Your task to perform on an android device: turn on priority inbox in the gmail app Image 0: 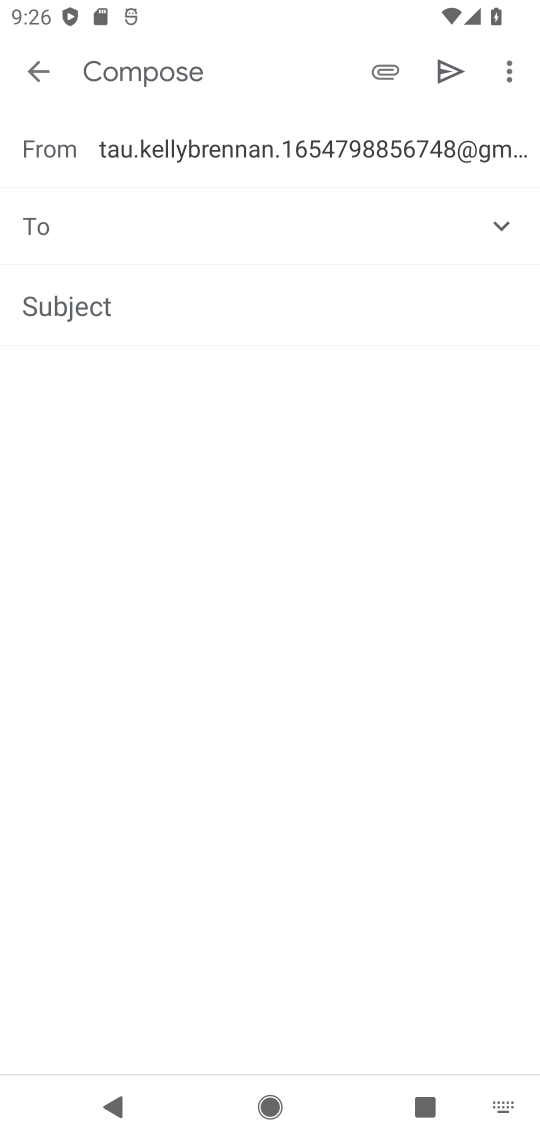
Step 0: press home button
Your task to perform on an android device: turn on priority inbox in the gmail app Image 1: 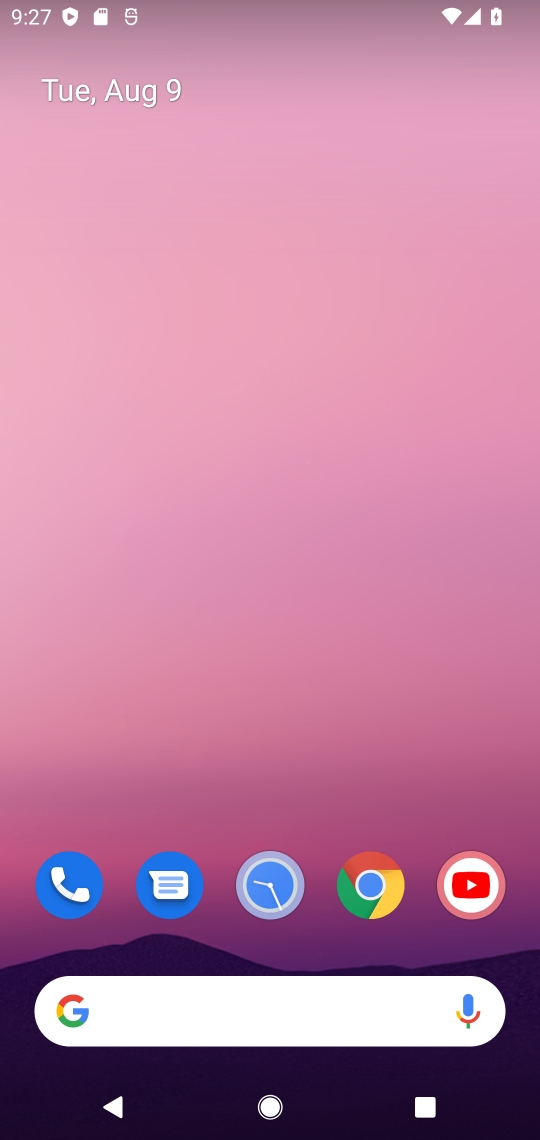
Step 1: drag from (319, 933) to (359, 193)
Your task to perform on an android device: turn on priority inbox in the gmail app Image 2: 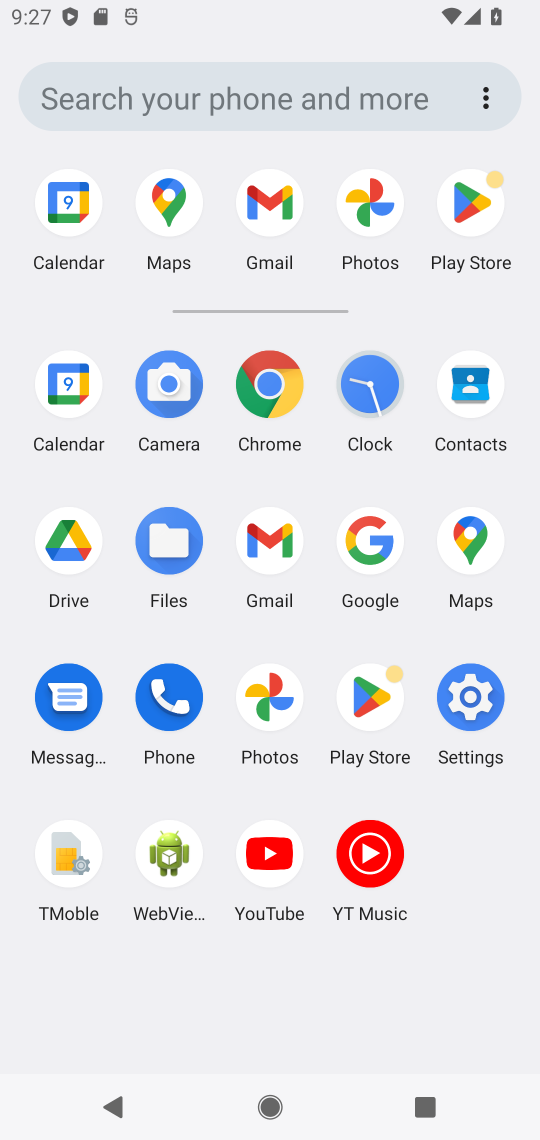
Step 2: click (269, 532)
Your task to perform on an android device: turn on priority inbox in the gmail app Image 3: 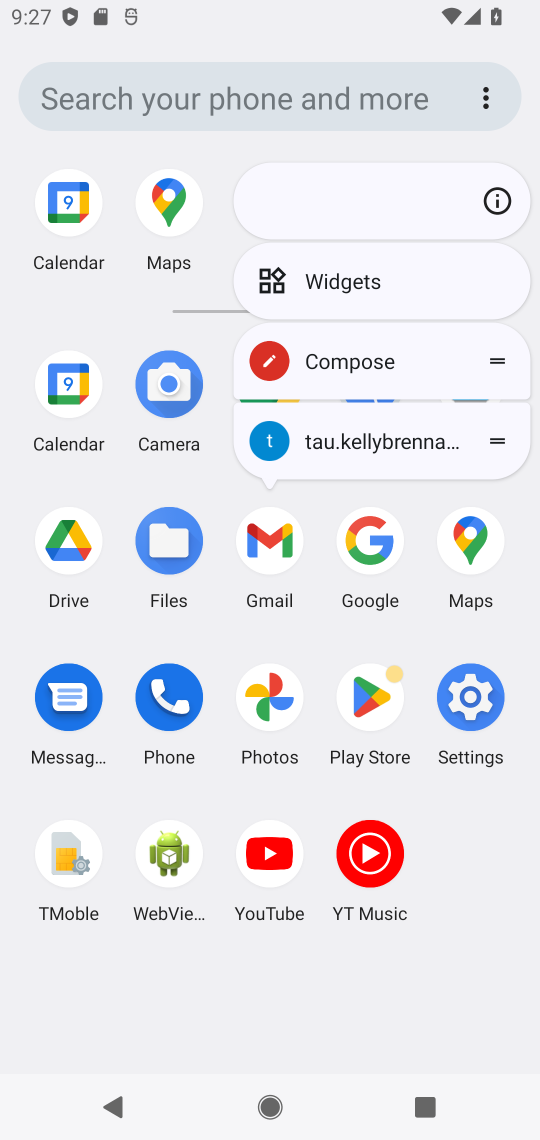
Step 3: click (272, 527)
Your task to perform on an android device: turn on priority inbox in the gmail app Image 4: 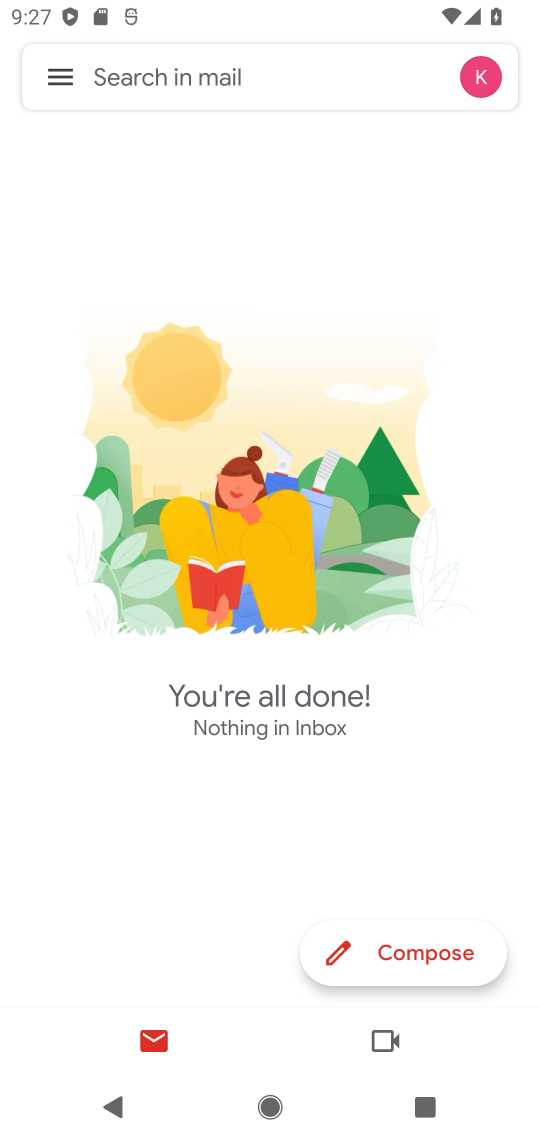
Step 4: click (60, 73)
Your task to perform on an android device: turn on priority inbox in the gmail app Image 5: 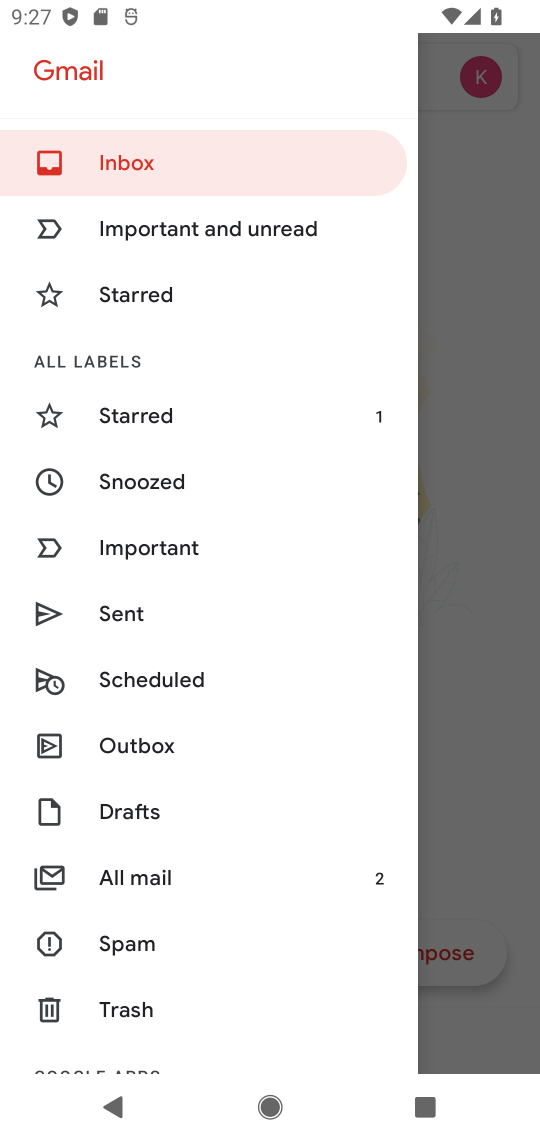
Step 5: drag from (184, 999) to (199, 337)
Your task to perform on an android device: turn on priority inbox in the gmail app Image 6: 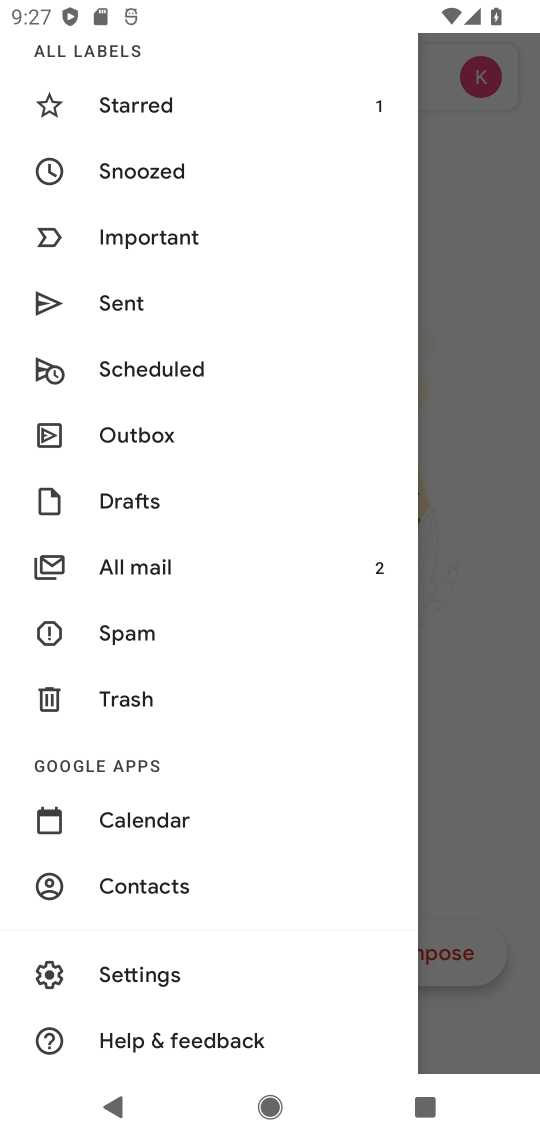
Step 6: click (186, 972)
Your task to perform on an android device: turn on priority inbox in the gmail app Image 7: 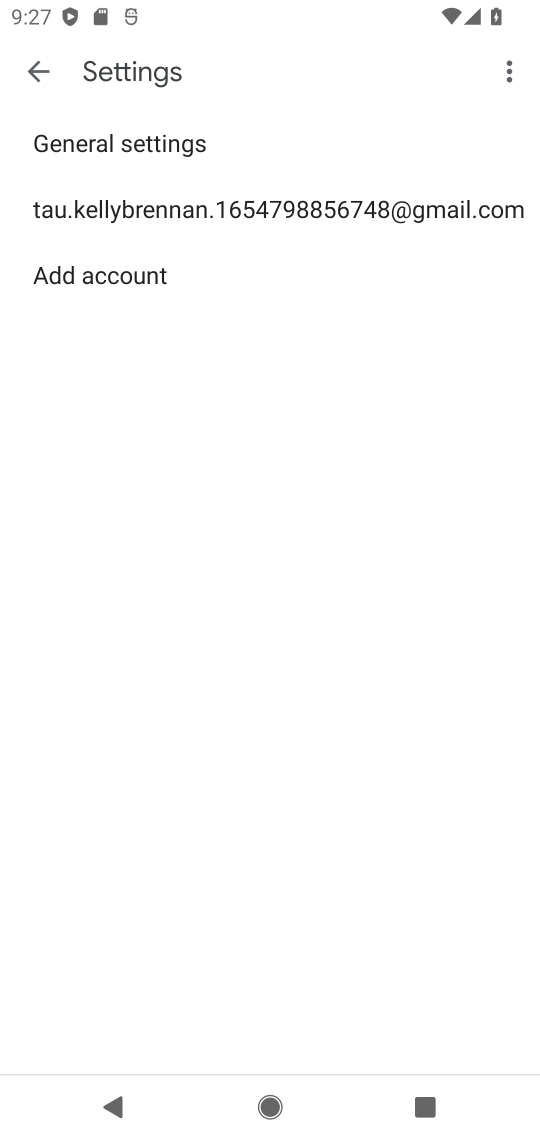
Step 7: click (234, 207)
Your task to perform on an android device: turn on priority inbox in the gmail app Image 8: 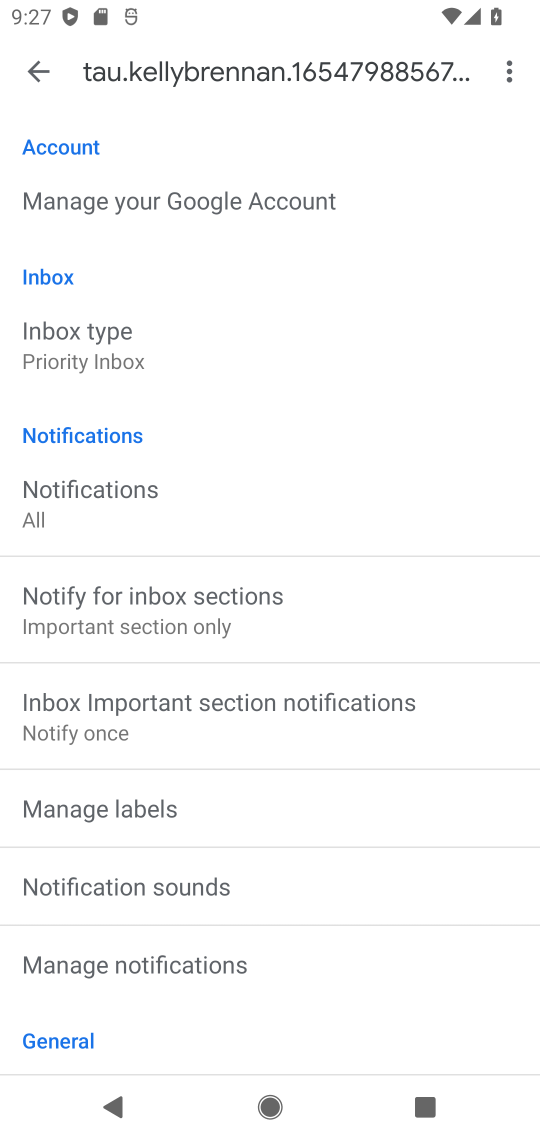
Step 8: click (174, 347)
Your task to perform on an android device: turn on priority inbox in the gmail app Image 9: 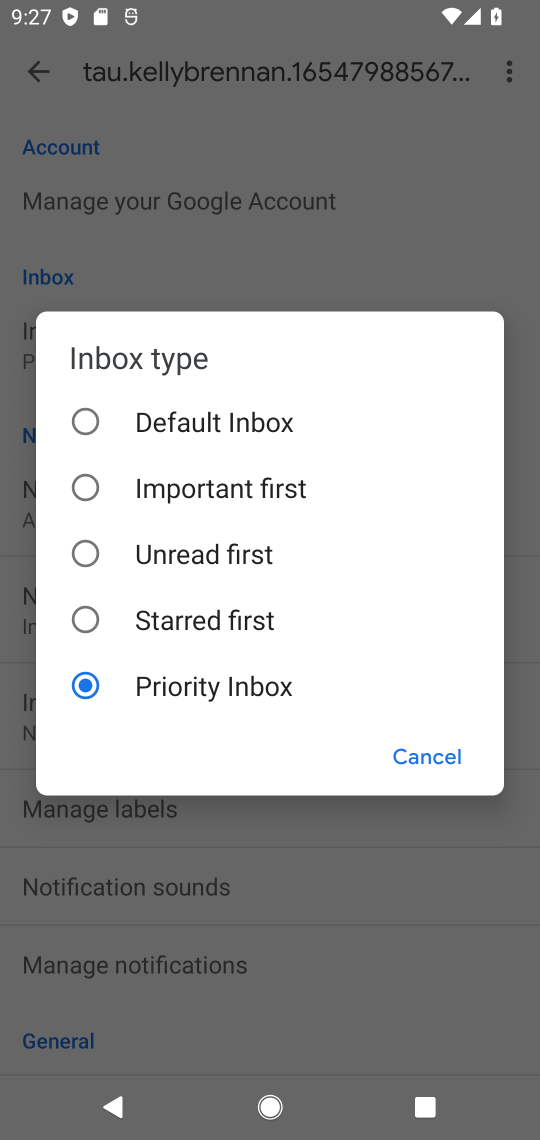
Step 9: click (69, 685)
Your task to perform on an android device: turn on priority inbox in the gmail app Image 10: 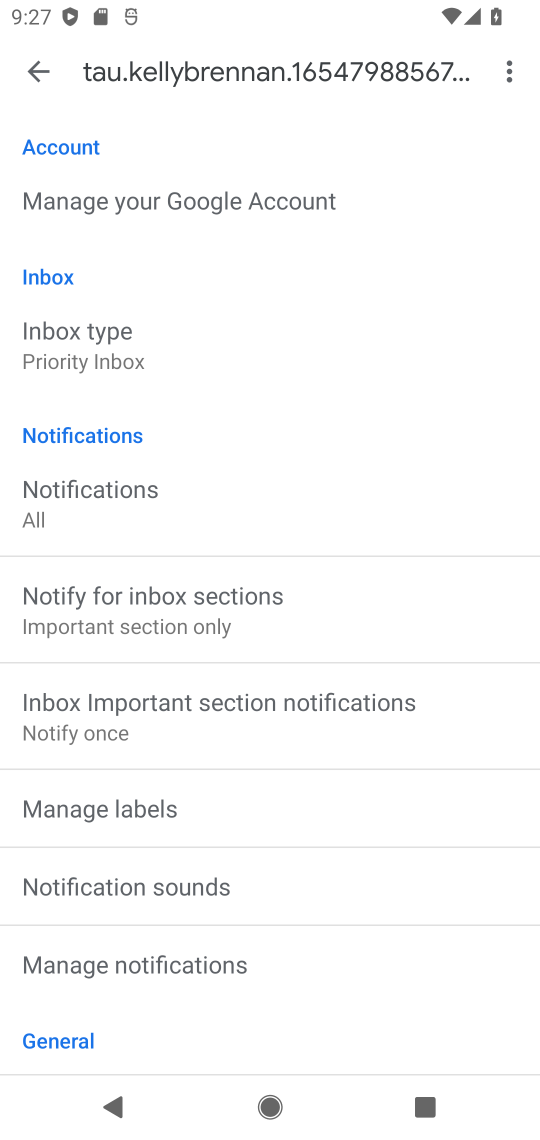
Step 10: task complete